Your task to perform on an android device: Turn off the flashlight Image 0: 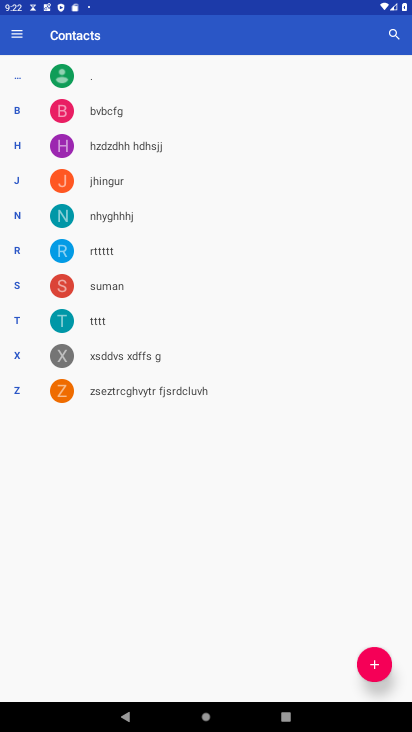
Step 0: press home button
Your task to perform on an android device: Turn off the flashlight Image 1: 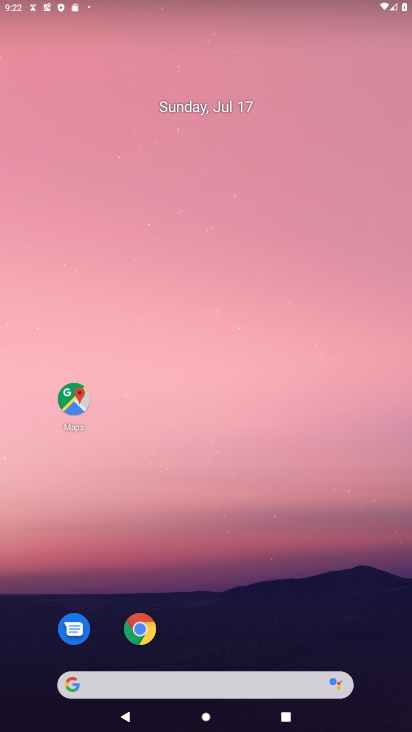
Step 1: drag from (234, 629) to (234, 108)
Your task to perform on an android device: Turn off the flashlight Image 2: 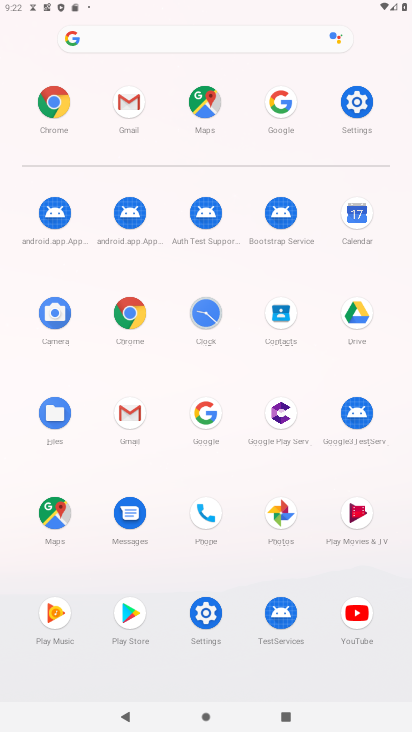
Step 2: click (366, 115)
Your task to perform on an android device: Turn off the flashlight Image 3: 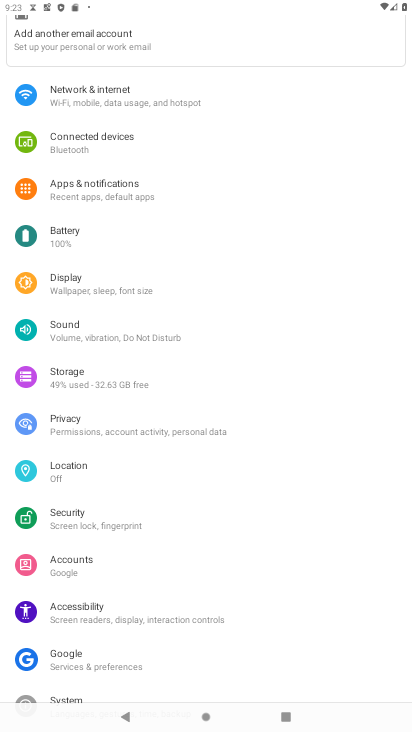
Step 3: task complete